Your task to perform on an android device: Go to Google maps Image 0: 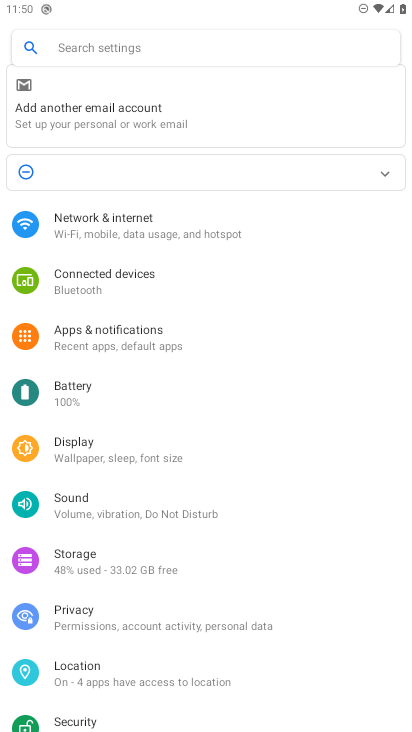
Step 0: press home button
Your task to perform on an android device: Go to Google maps Image 1: 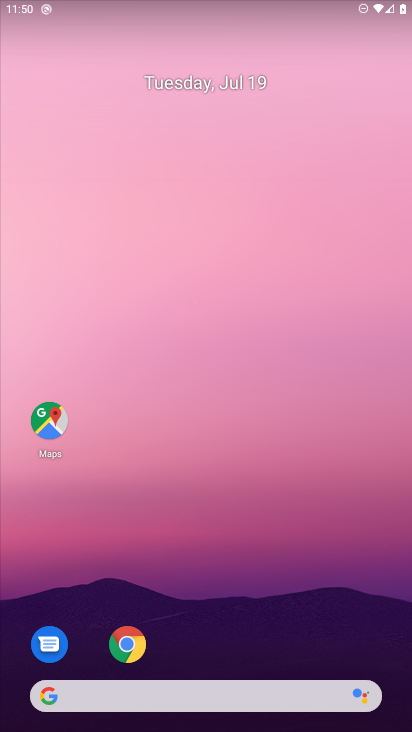
Step 1: click (43, 410)
Your task to perform on an android device: Go to Google maps Image 2: 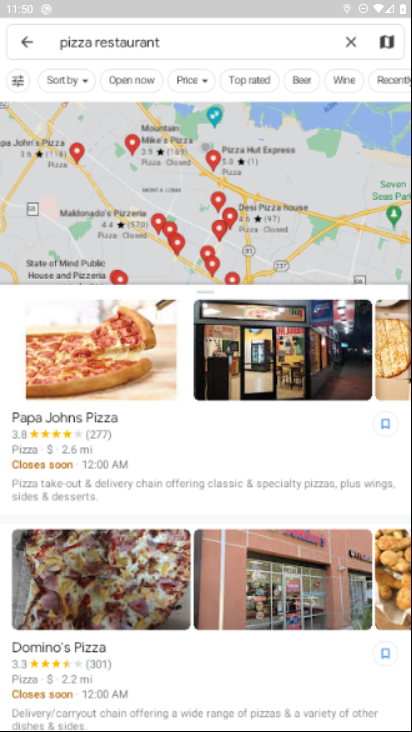
Step 2: click (353, 37)
Your task to perform on an android device: Go to Google maps Image 3: 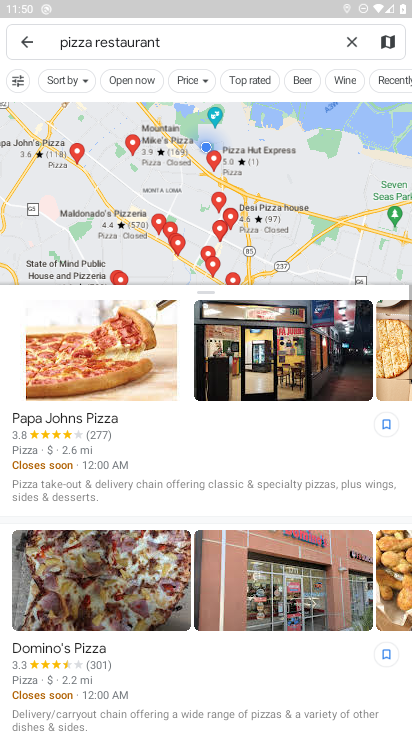
Step 3: click (352, 40)
Your task to perform on an android device: Go to Google maps Image 4: 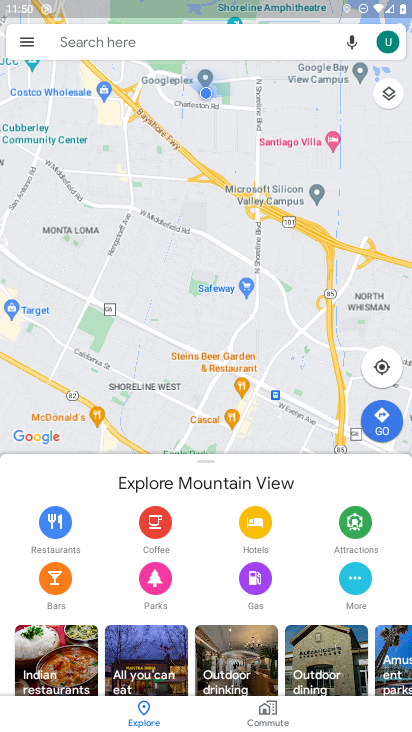
Step 4: click (87, 41)
Your task to perform on an android device: Go to Google maps Image 5: 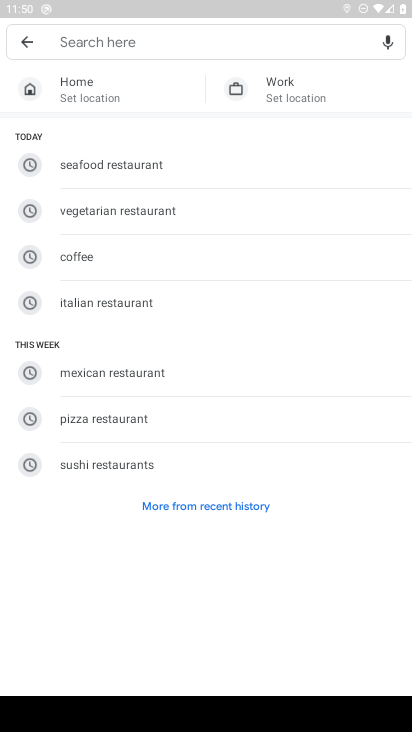
Step 5: click (22, 45)
Your task to perform on an android device: Go to Google maps Image 6: 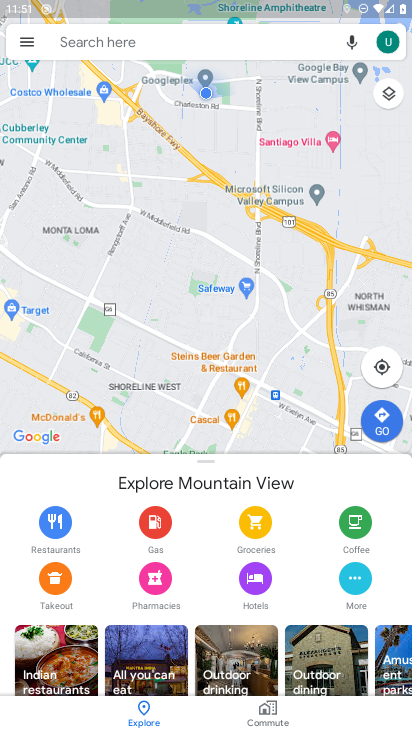
Step 6: task complete